Your task to perform on an android device: turn off wifi Image 0: 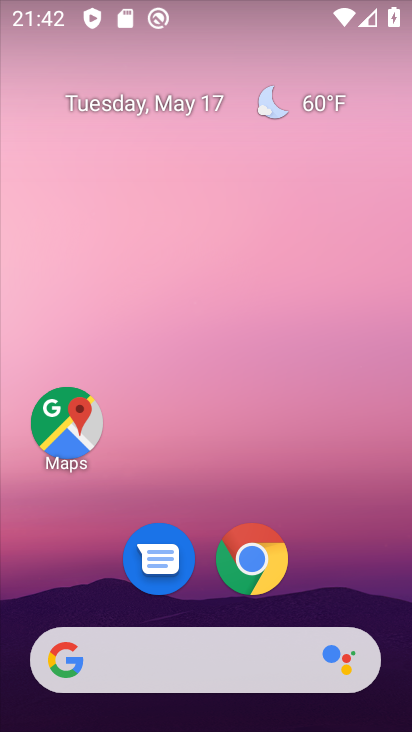
Step 0: drag from (353, 499) to (286, 180)
Your task to perform on an android device: turn off wifi Image 1: 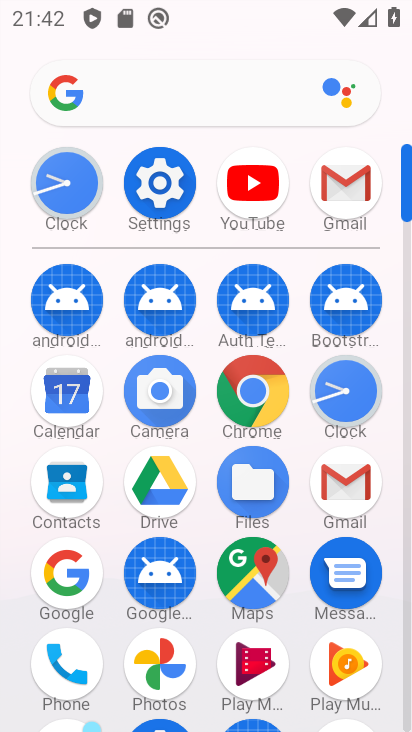
Step 1: click (172, 210)
Your task to perform on an android device: turn off wifi Image 2: 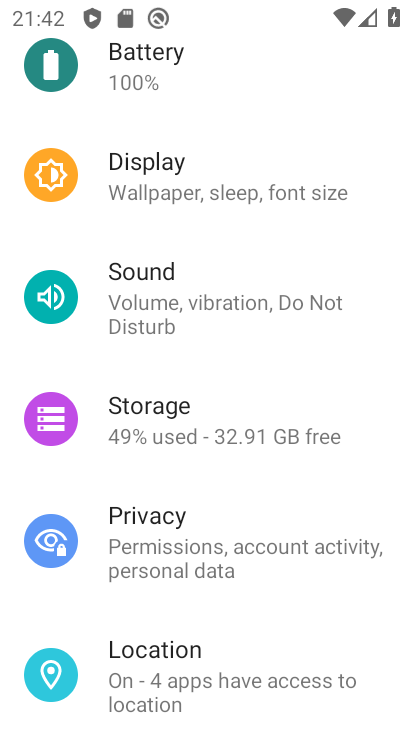
Step 2: drag from (249, 170) to (203, 560)
Your task to perform on an android device: turn off wifi Image 3: 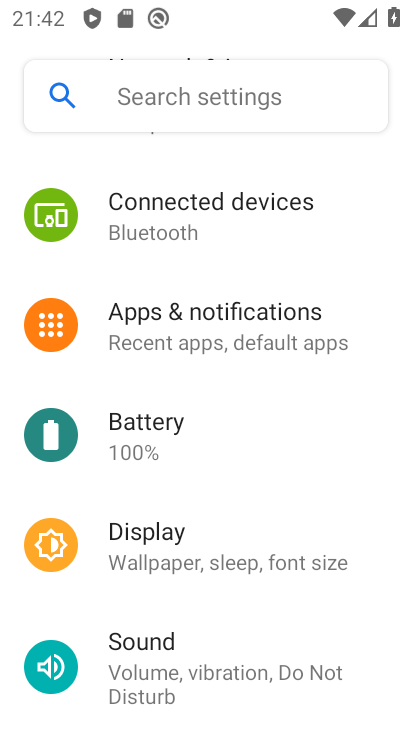
Step 3: drag from (227, 343) to (247, 615)
Your task to perform on an android device: turn off wifi Image 4: 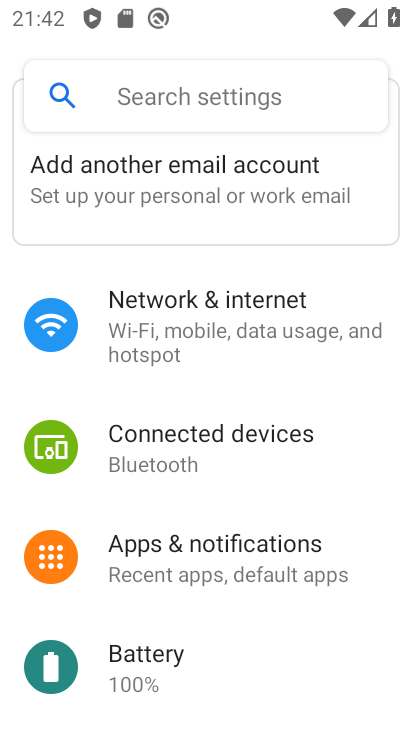
Step 4: click (242, 310)
Your task to perform on an android device: turn off wifi Image 5: 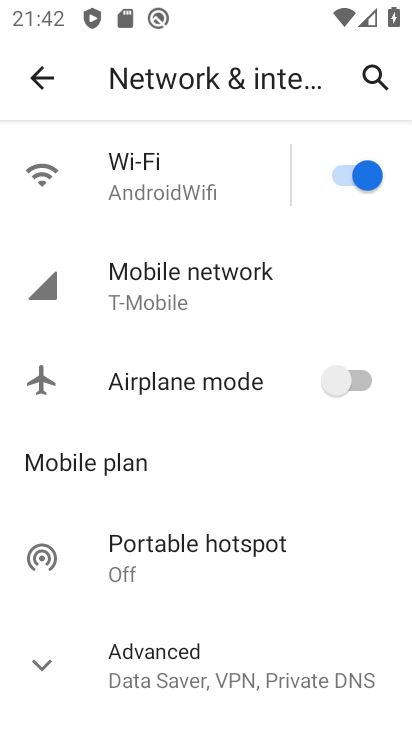
Step 5: click (345, 175)
Your task to perform on an android device: turn off wifi Image 6: 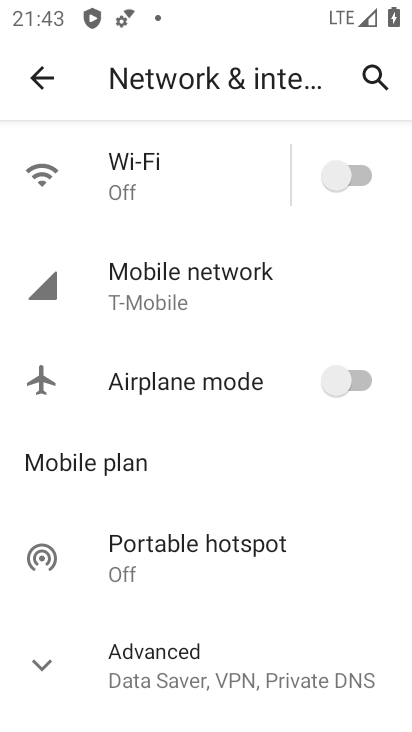
Step 6: task complete